Your task to perform on an android device: What's on the menu at Taco Bell? Image 0: 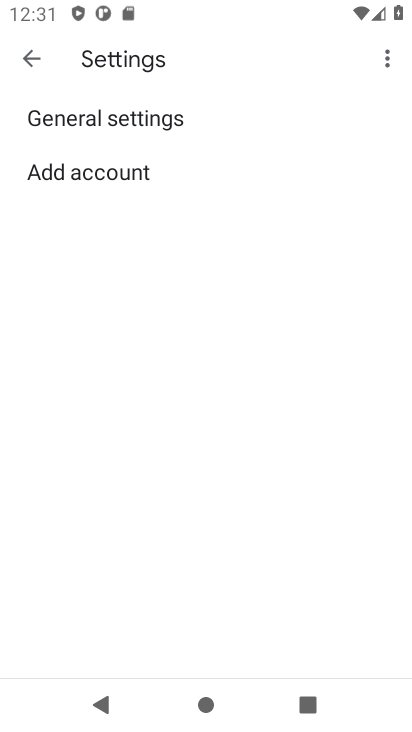
Step 0: click (135, 552)
Your task to perform on an android device: What's on the menu at Taco Bell? Image 1: 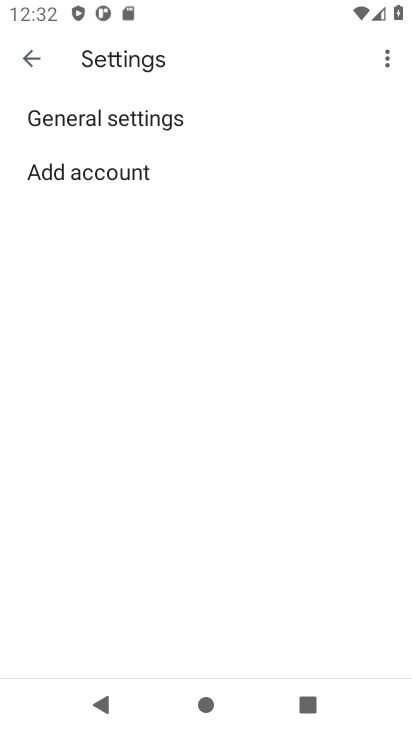
Step 1: press home button
Your task to perform on an android device: What's on the menu at Taco Bell? Image 2: 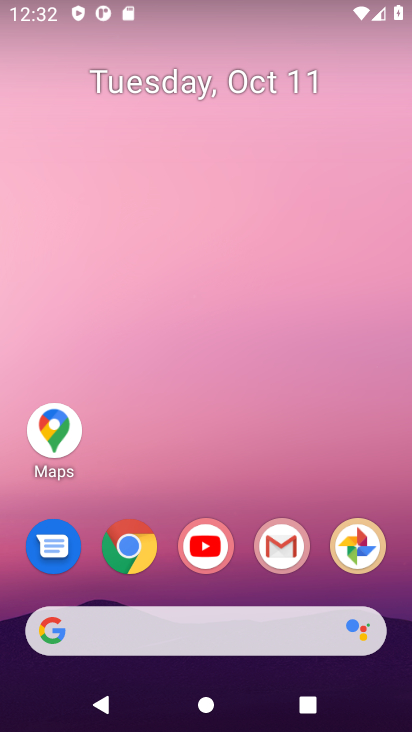
Step 2: click (123, 556)
Your task to perform on an android device: What's on the menu at Taco Bell? Image 3: 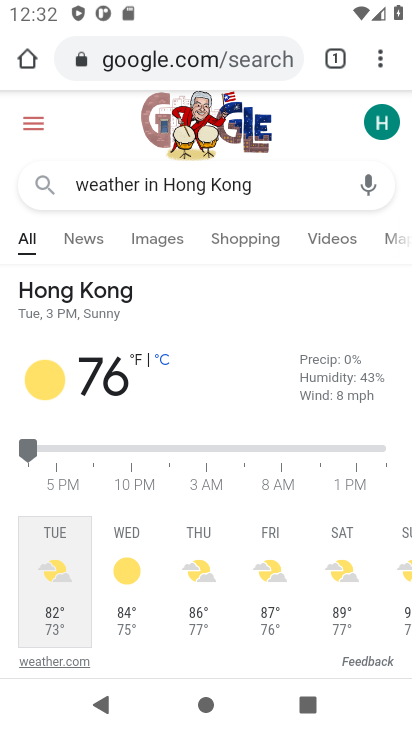
Step 3: click (197, 51)
Your task to perform on an android device: What's on the menu at Taco Bell? Image 4: 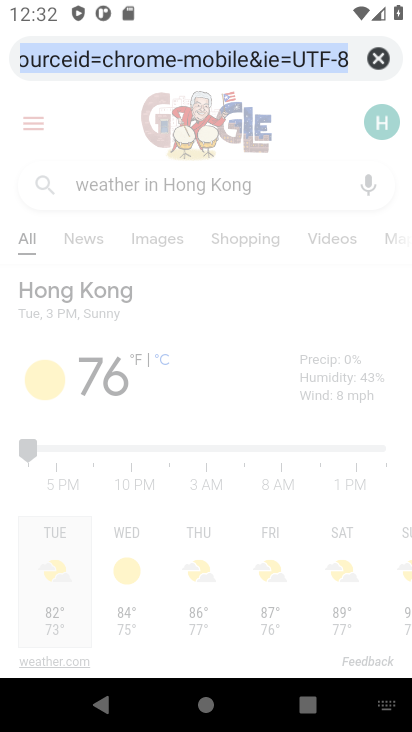
Step 4: type "taco bell"
Your task to perform on an android device: What's on the menu at Taco Bell? Image 5: 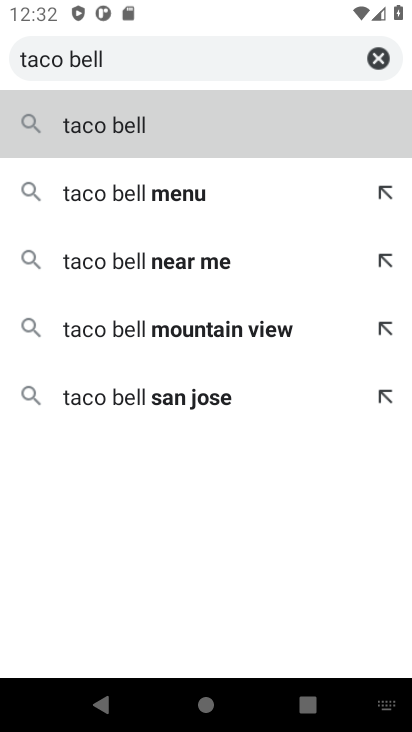
Step 5: press enter
Your task to perform on an android device: What's on the menu at Taco Bell? Image 6: 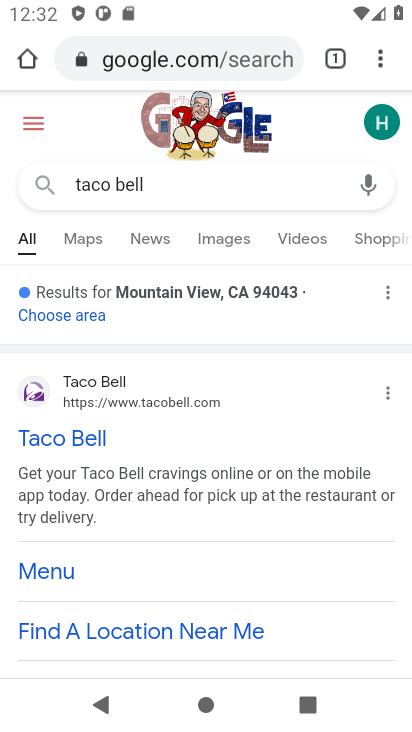
Step 6: click (55, 574)
Your task to perform on an android device: What's on the menu at Taco Bell? Image 7: 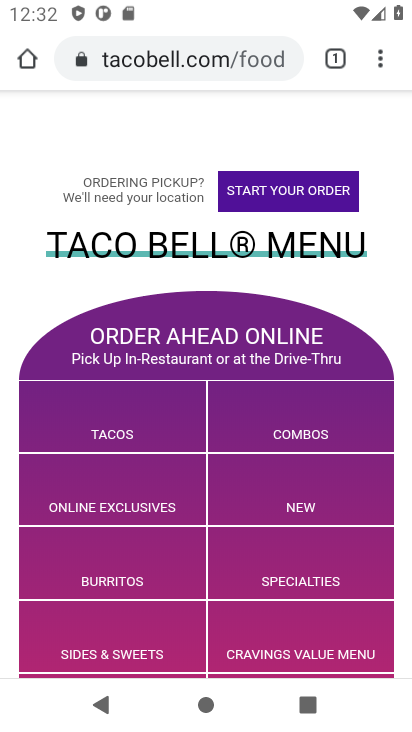
Step 7: task complete